Your task to perform on an android device: set default search engine in the chrome app Image 0: 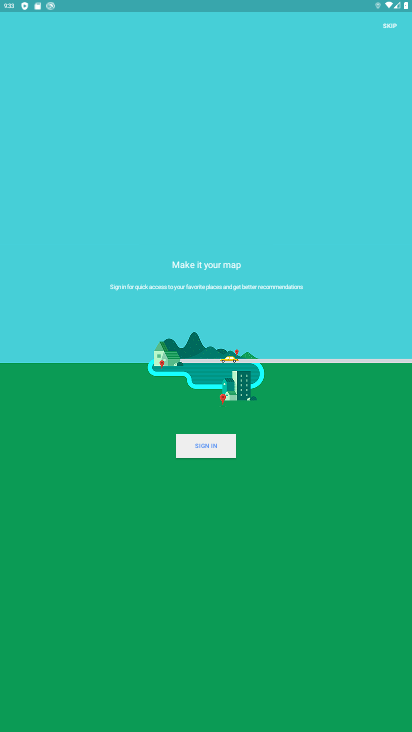
Step 0: press home button
Your task to perform on an android device: set default search engine in the chrome app Image 1: 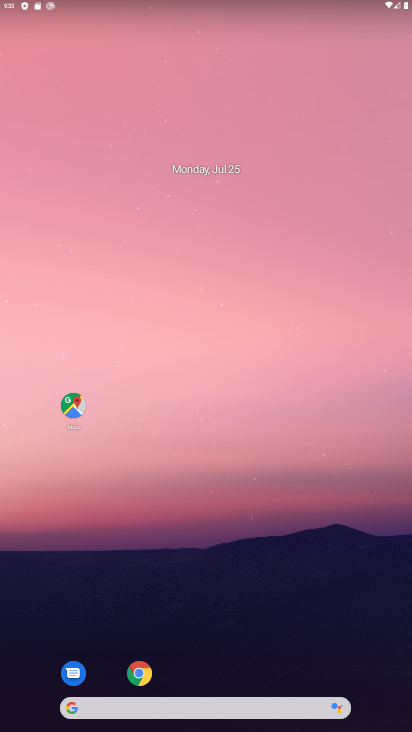
Step 1: drag from (314, 618) to (306, 118)
Your task to perform on an android device: set default search engine in the chrome app Image 2: 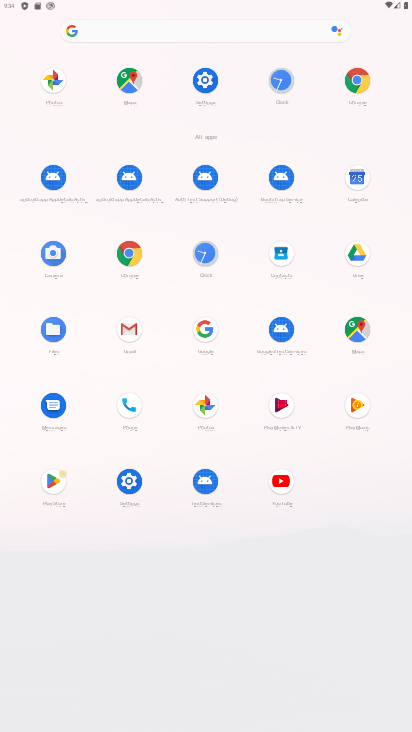
Step 2: click (127, 255)
Your task to perform on an android device: set default search engine in the chrome app Image 3: 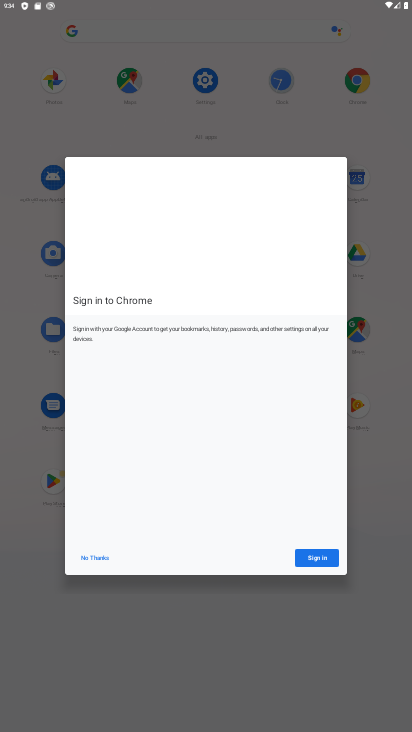
Step 3: click (313, 552)
Your task to perform on an android device: set default search engine in the chrome app Image 4: 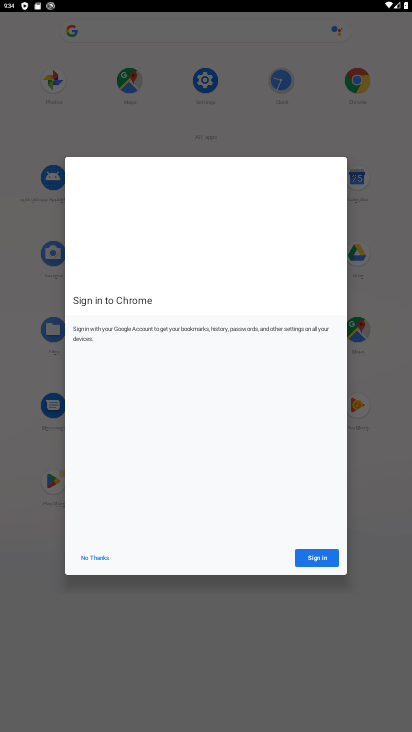
Step 4: click (313, 552)
Your task to perform on an android device: set default search engine in the chrome app Image 5: 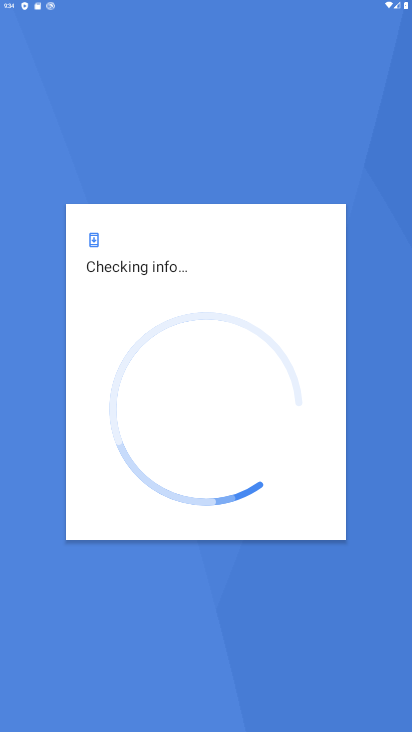
Step 5: task complete